Your task to perform on an android device: turn smart compose on in the gmail app Image 0: 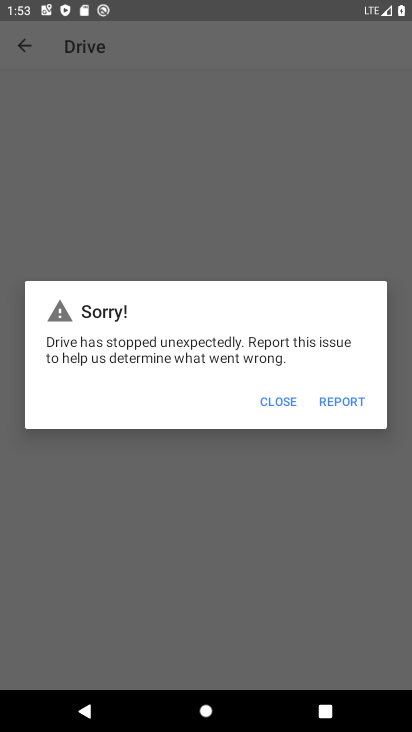
Step 0: press home button
Your task to perform on an android device: turn smart compose on in the gmail app Image 1: 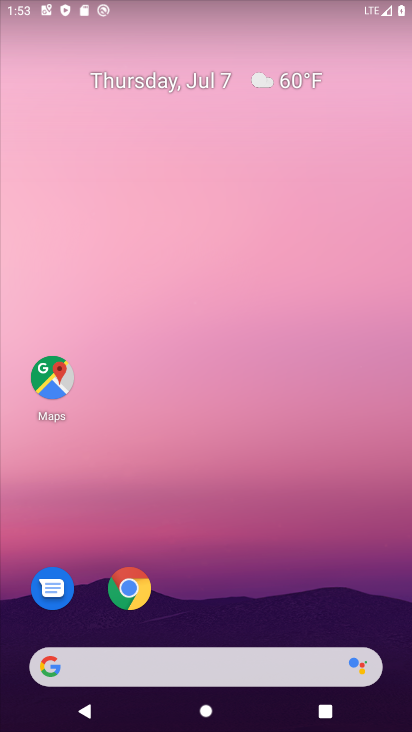
Step 1: drag from (248, 582) to (253, 70)
Your task to perform on an android device: turn smart compose on in the gmail app Image 2: 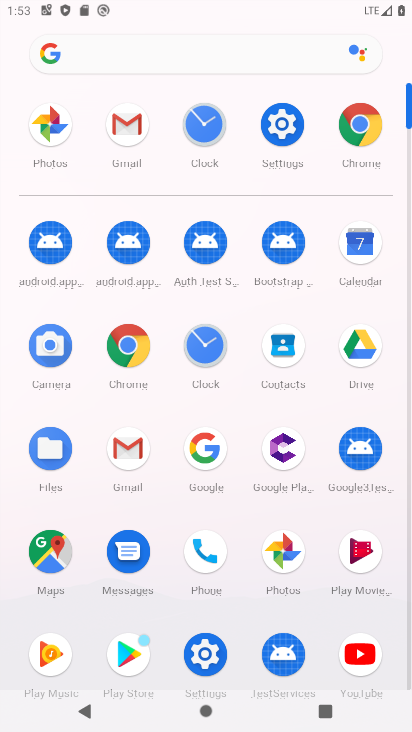
Step 2: click (132, 129)
Your task to perform on an android device: turn smart compose on in the gmail app Image 3: 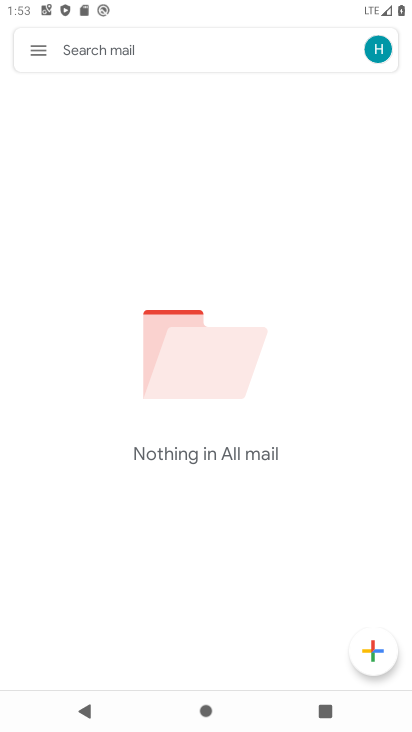
Step 3: click (43, 40)
Your task to perform on an android device: turn smart compose on in the gmail app Image 4: 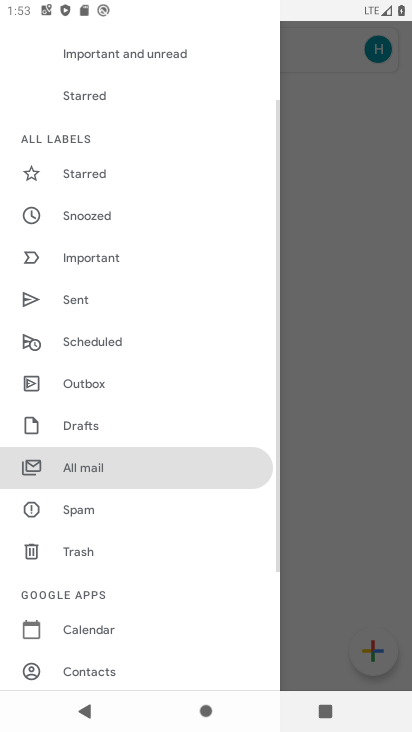
Step 4: drag from (111, 637) to (144, 180)
Your task to perform on an android device: turn smart compose on in the gmail app Image 5: 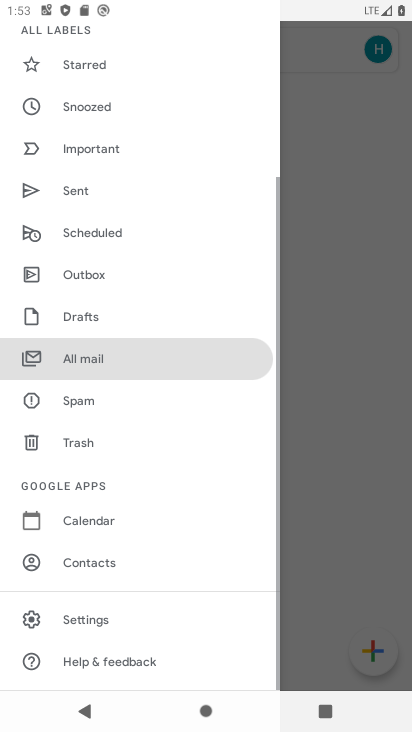
Step 5: click (65, 619)
Your task to perform on an android device: turn smart compose on in the gmail app Image 6: 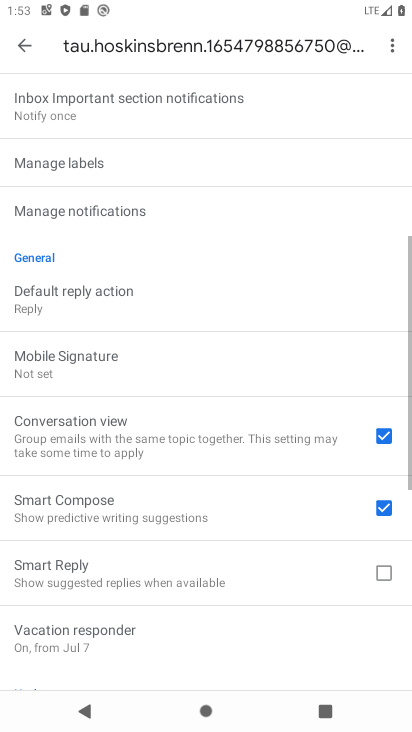
Step 6: task complete